Your task to perform on an android device: Search for Mexican restaurants on Maps Image 0: 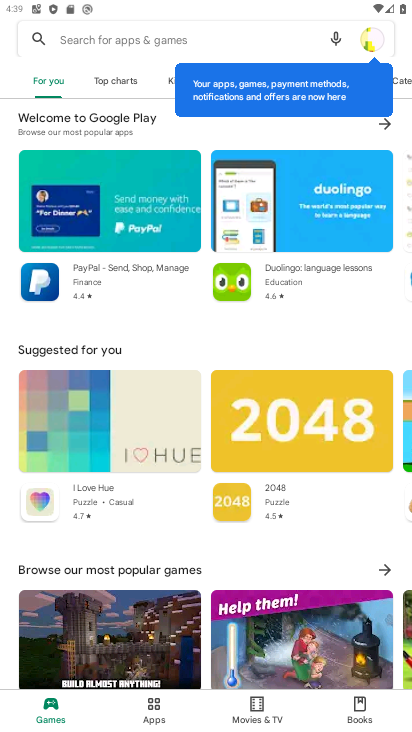
Step 0: press home button
Your task to perform on an android device: Search for Mexican restaurants on Maps Image 1: 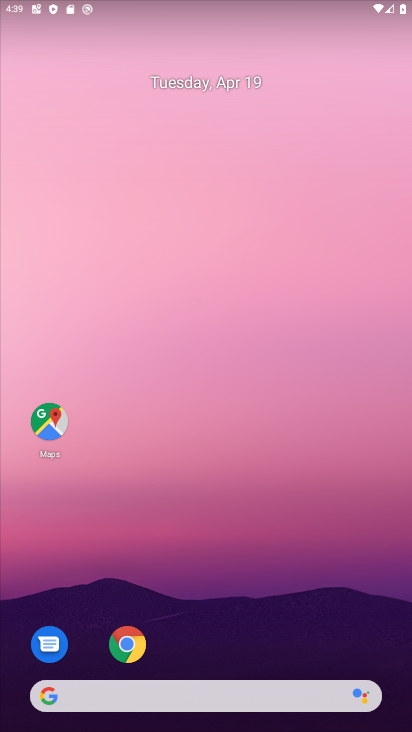
Step 1: drag from (247, 644) to (218, 184)
Your task to perform on an android device: Search for Mexican restaurants on Maps Image 2: 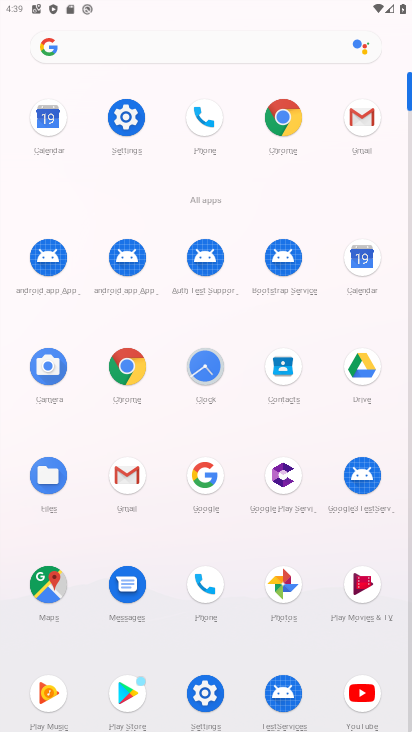
Step 2: click (51, 613)
Your task to perform on an android device: Search for Mexican restaurants on Maps Image 3: 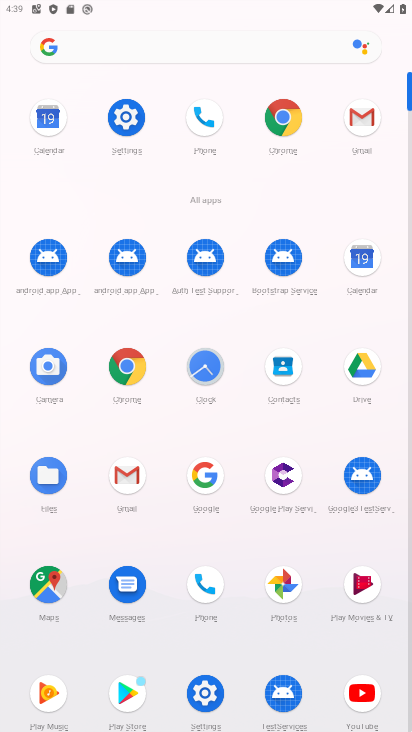
Step 3: click (51, 613)
Your task to perform on an android device: Search for Mexican restaurants on Maps Image 4: 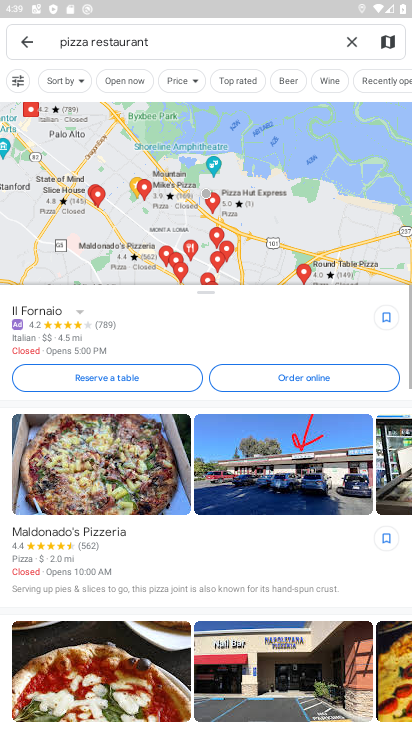
Step 4: click (348, 49)
Your task to perform on an android device: Search for Mexican restaurants on Maps Image 5: 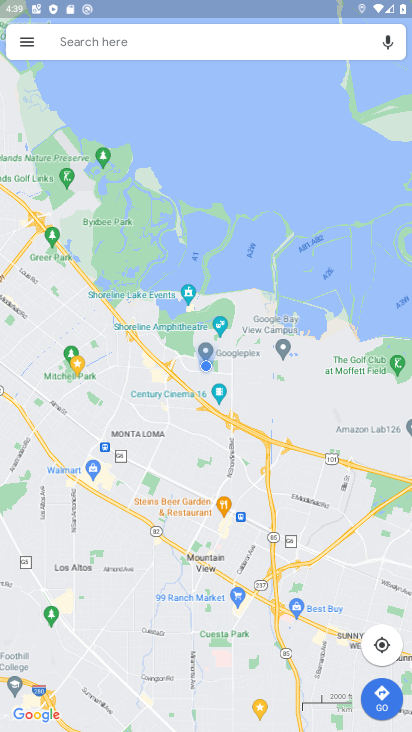
Step 5: click (226, 47)
Your task to perform on an android device: Search for Mexican restaurants on Maps Image 6: 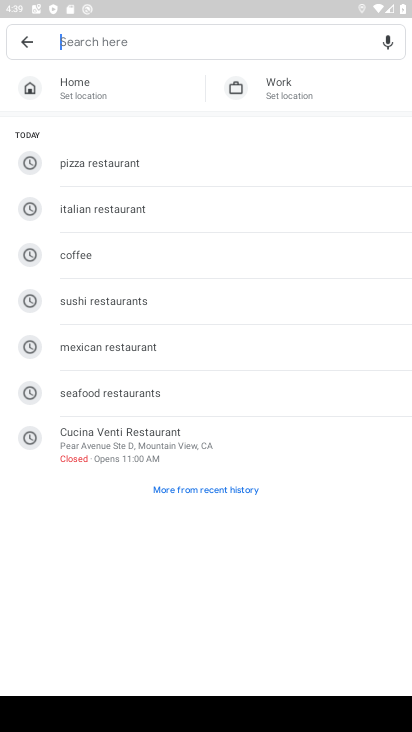
Step 6: click (133, 339)
Your task to perform on an android device: Search for Mexican restaurants on Maps Image 7: 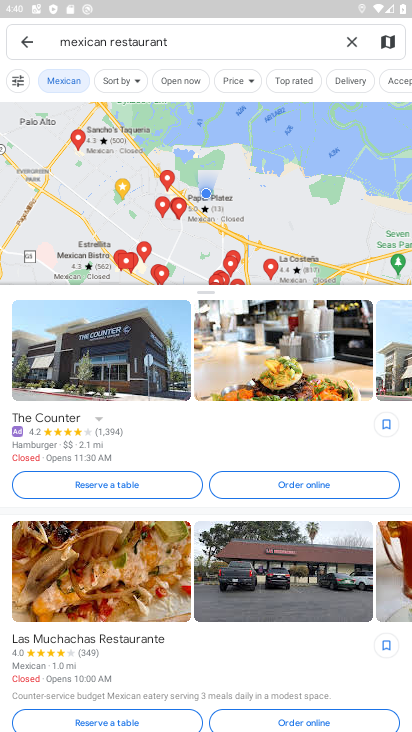
Step 7: task complete